Your task to perform on an android device: open a new tab in the chrome app Image 0: 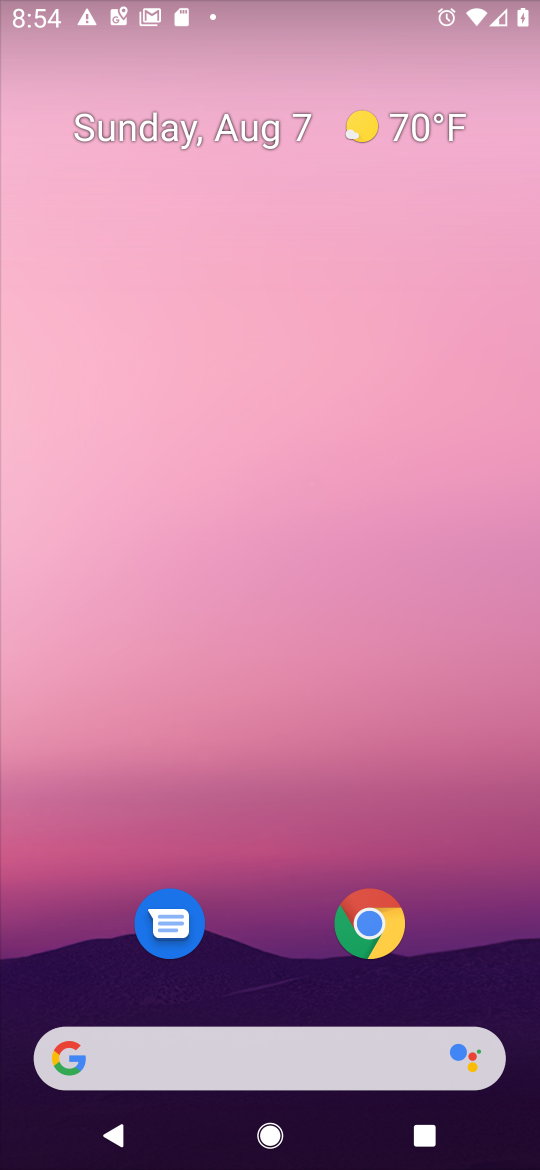
Step 0: drag from (500, 1007) to (305, 4)
Your task to perform on an android device: open a new tab in the chrome app Image 1: 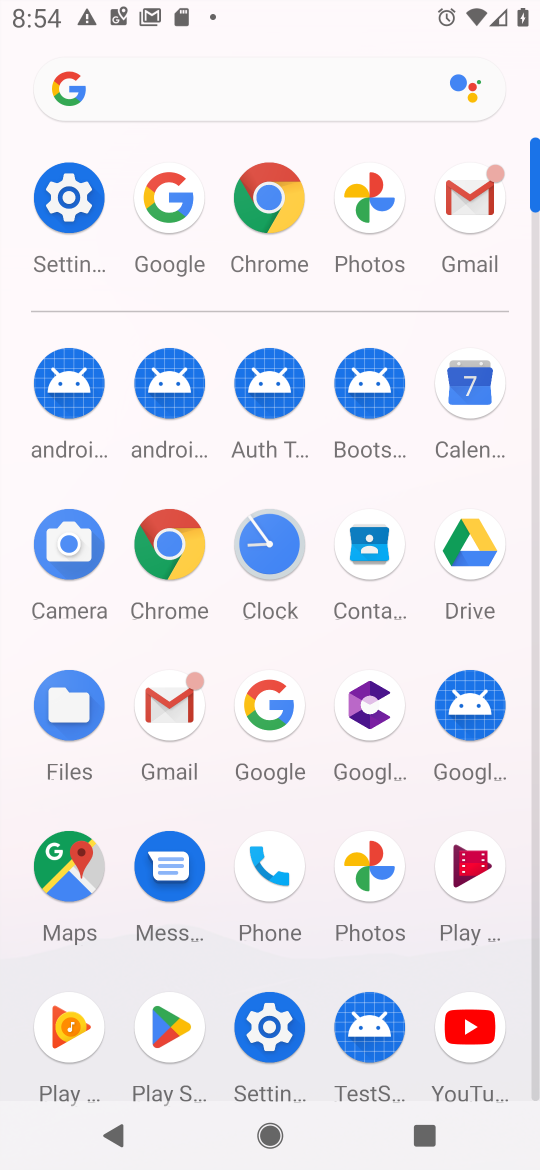
Step 1: click (267, 209)
Your task to perform on an android device: open a new tab in the chrome app Image 2: 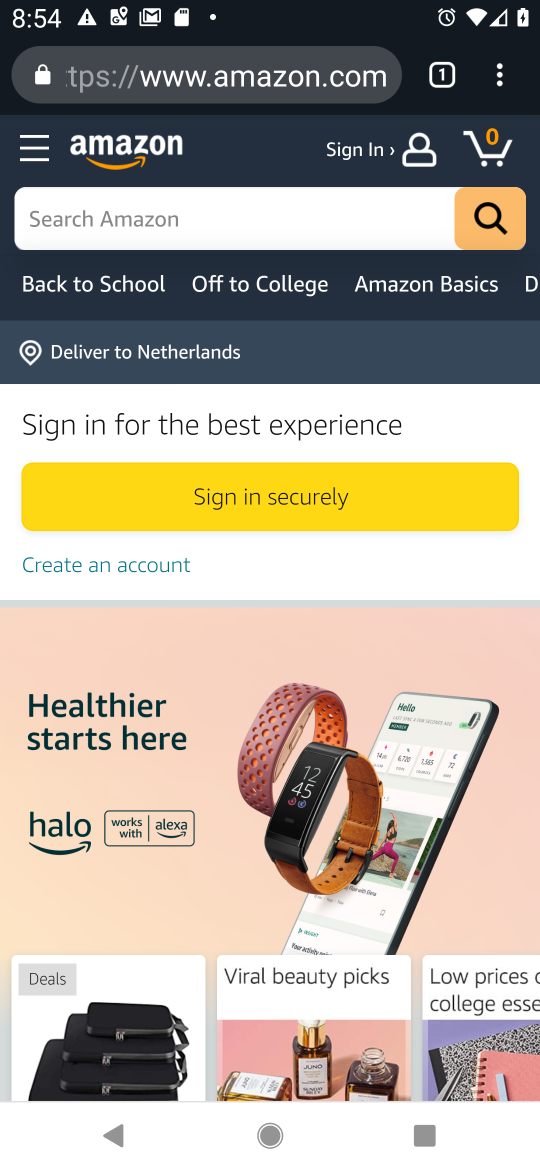
Step 2: click (504, 66)
Your task to perform on an android device: open a new tab in the chrome app Image 3: 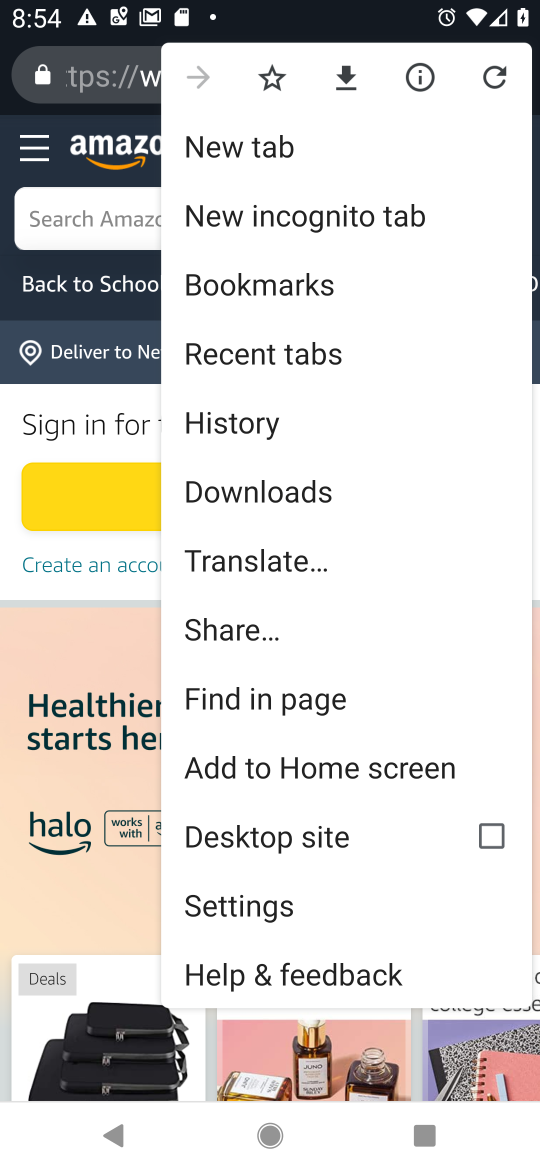
Step 3: click (309, 156)
Your task to perform on an android device: open a new tab in the chrome app Image 4: 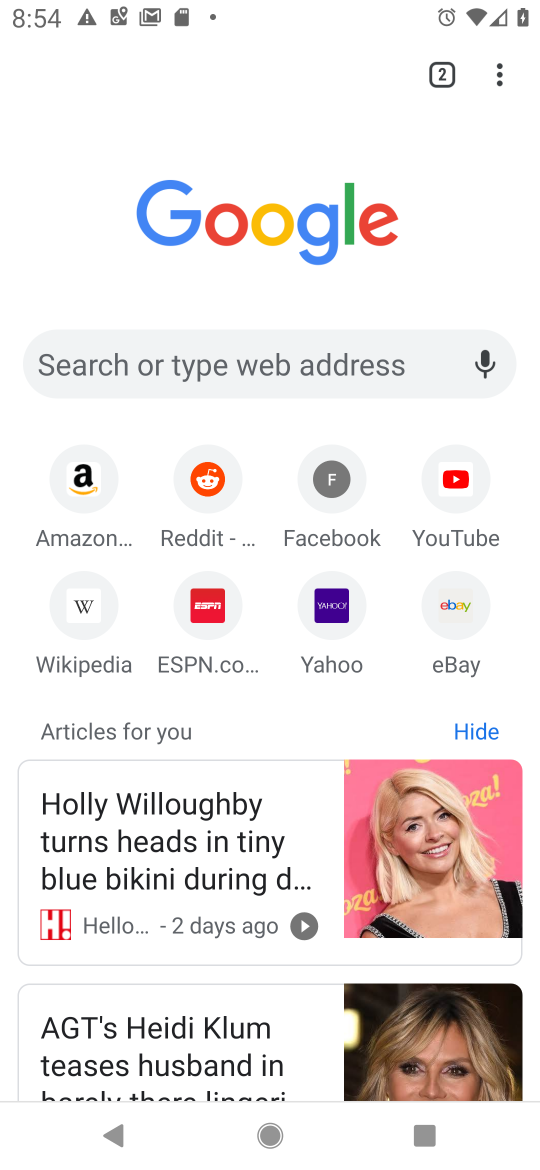
Step 4: task complete